Your task to perform on an android device: see tabs open on other devices in the chrome app Image 0: 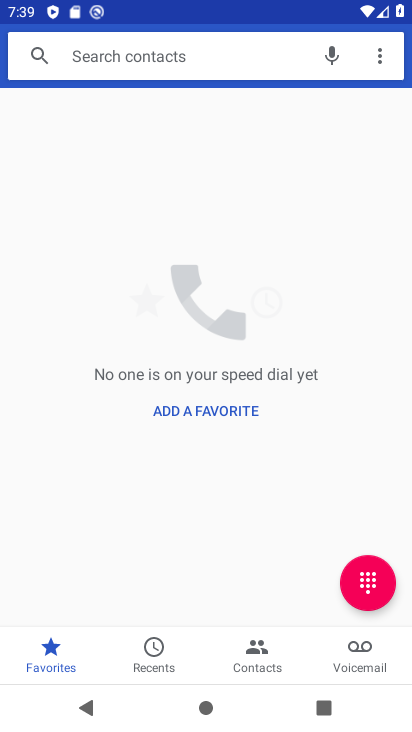
Step 0: press home button
Your task to perform on an android device: see tabs open on other devices in the chrome app Image 1: 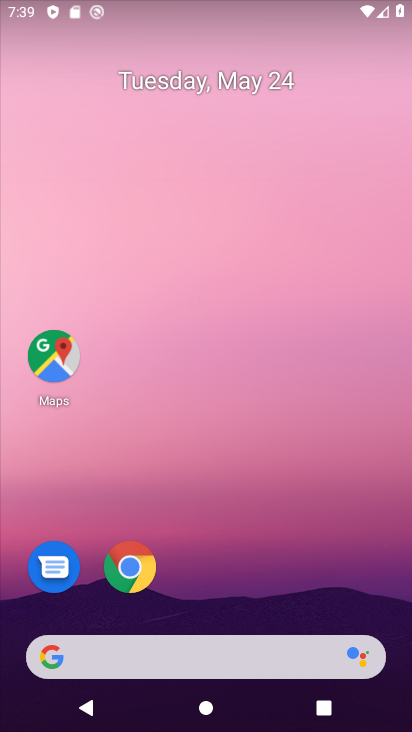
Step 1: click (133, 548)
Your task to perform on an android device: see tabs open on other devices in the chrome app Image 2: 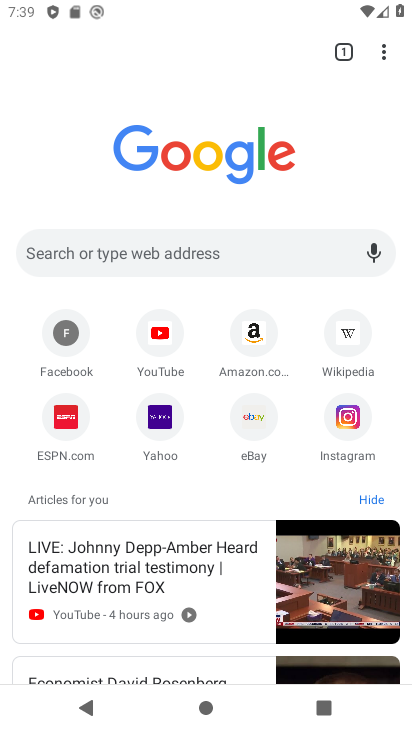
Step 2: click (392, 61)
Your task to perform on an android device: see tabs open on other devices in the chrome app Image 3: 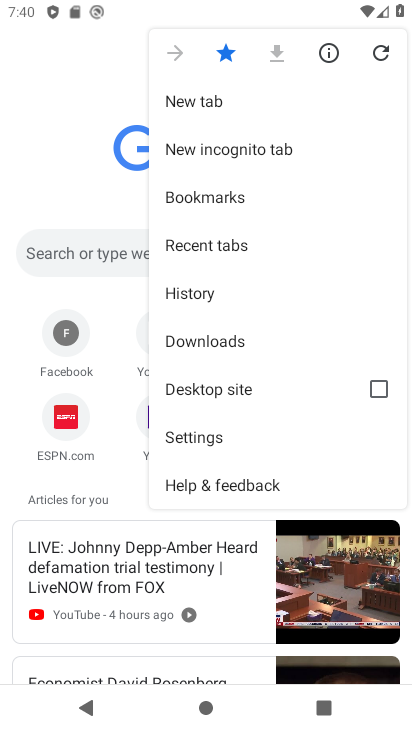
Step 3: click (207, 240)
Your task to perform on an android device: see tabs open on other devices in the chrome app Image 4: 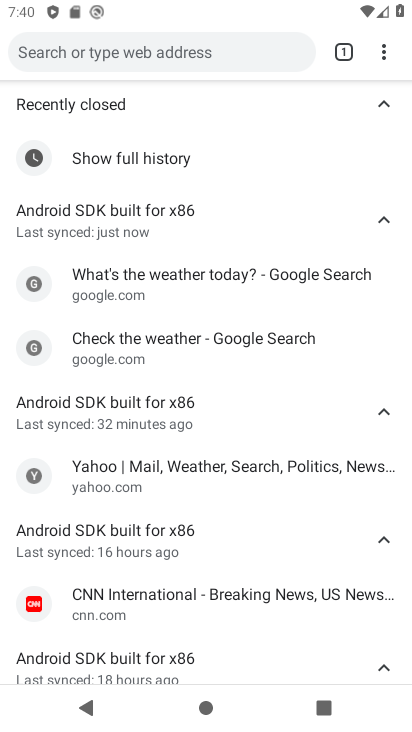
Step 4: task complete